Your task to perform on an android device: Go to Google Image 0: 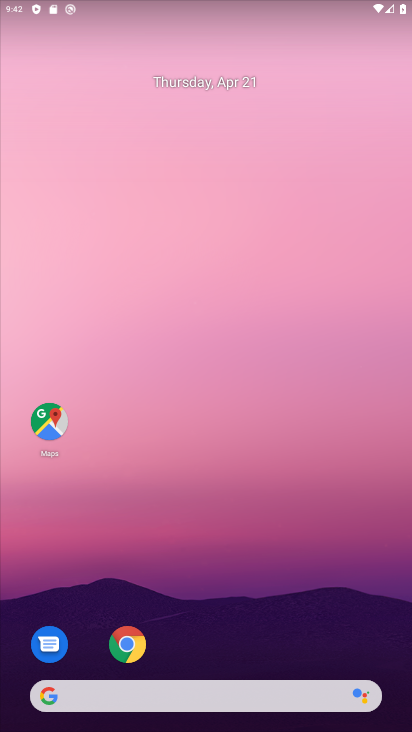
Step 0: click (154, 689)
Your task to perform on an android device: Go to Google Image 1: 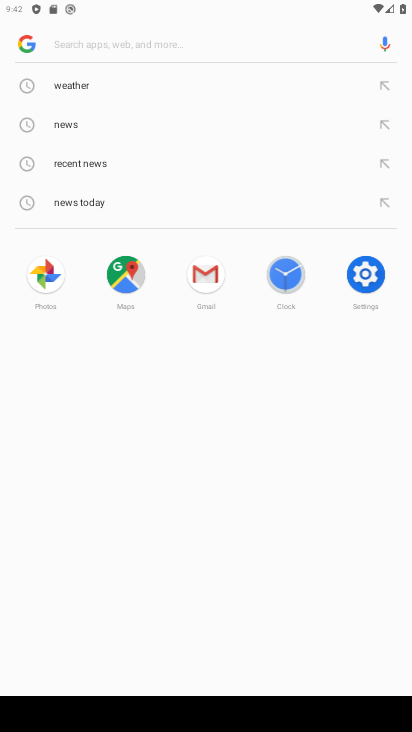
Step 1: type "google.com"
Your task to perform on an android device: Go to Google Image 2: 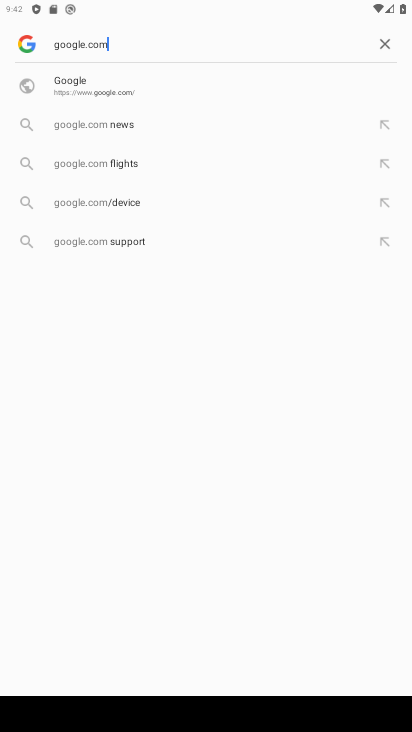
Step 2: click (115, 79)
Your task to perform on an android device: Go to Google Image 3: 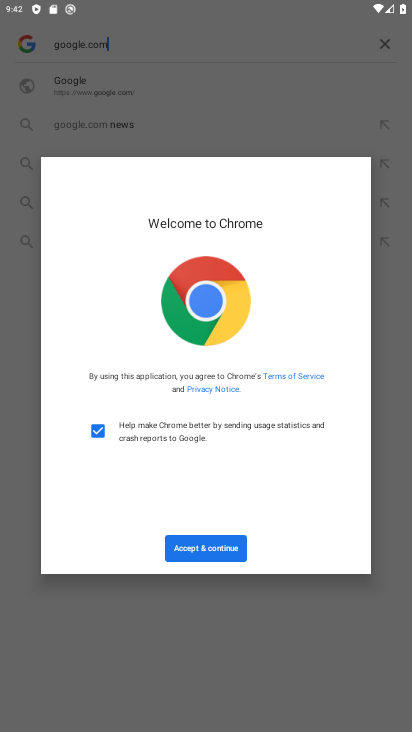
Step 3: click (199, 551)
Your task to perform on an android device: Go to Google Image 4: 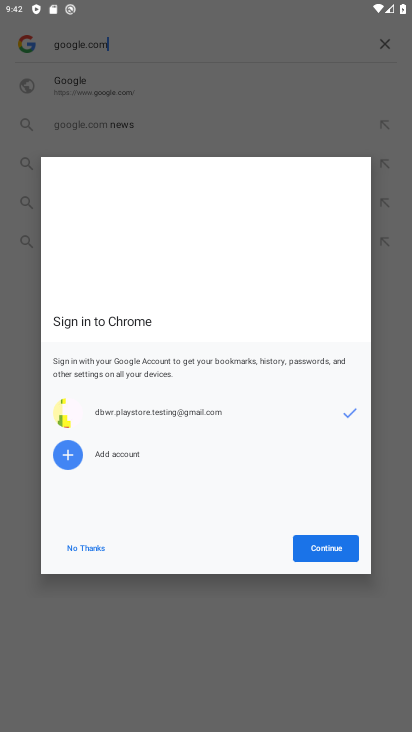
Step 4: click (320, 542)
Your task to perform on an android device: Go to Google Image 5: 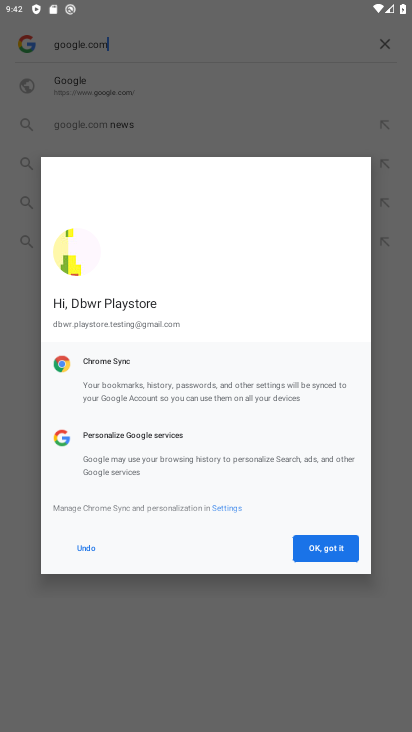
Step 5: click (320, 542)
Your task to perform on an android device: Go to Google Image 6: 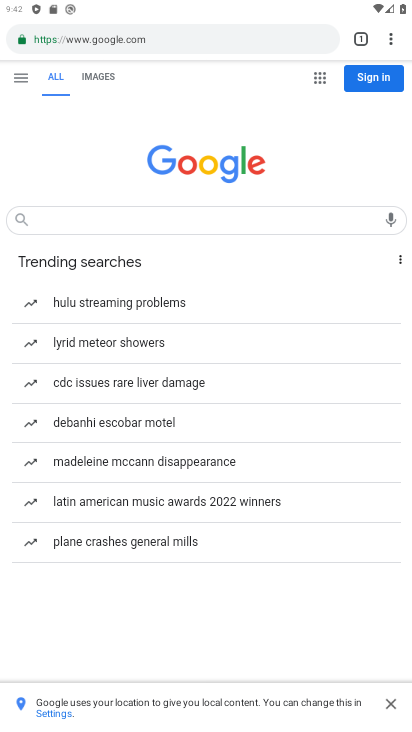
Step 6: task complete